Your task to perform on an android device: Go to location settings Image 0: 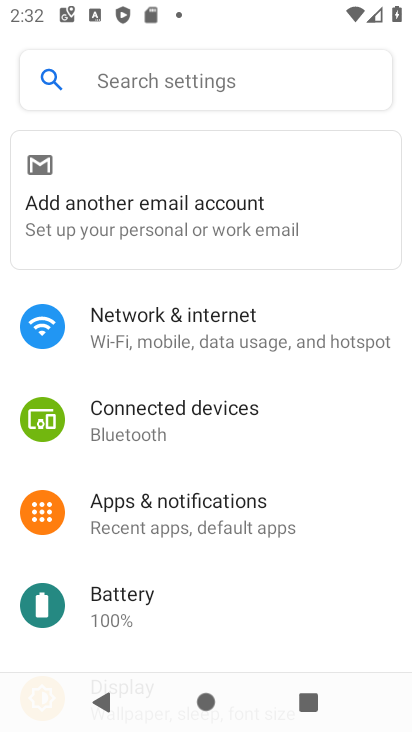
Step 0: drag from (156, 461) to (211, 167)
Your task to perform on an android device: Go to location settings Image 1: 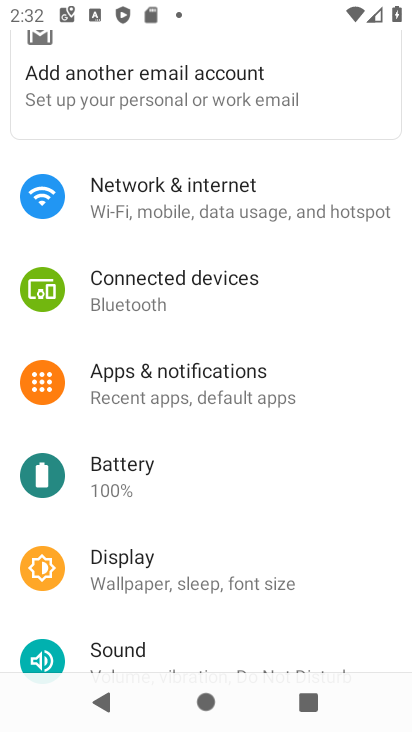
Step 1: drag from (185, 507) to (265, 181)
Your task to perform on an android device: Go to location settings Image 2: 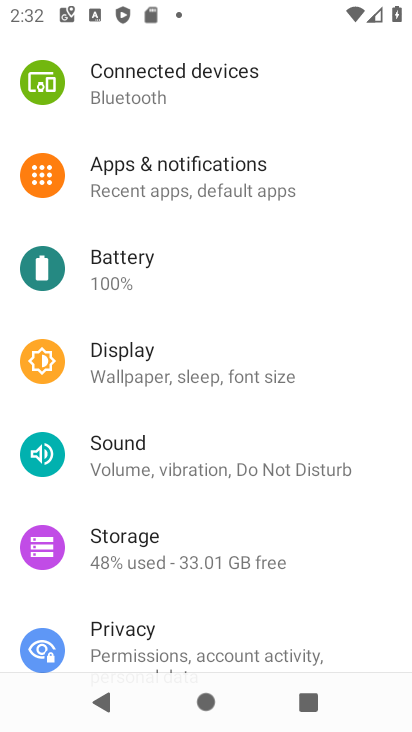
Step 2: drag from (238, 553) to (288, 199)
Your task to perform on an android device: Go to location settings Image 3: 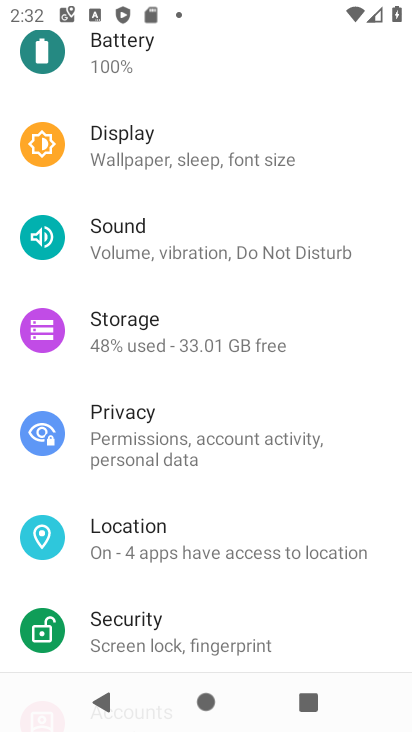
Step 3: click (145, 529)
Your task to perform on an android device: Go to location settings Image 4: 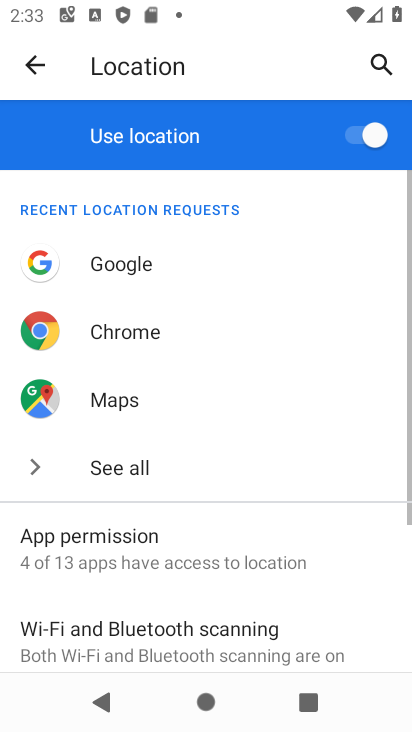
Step 4: task complete